Your task to perform on an android device: Add "bose soundlink mini" to the cart on ebay.com Image 0: 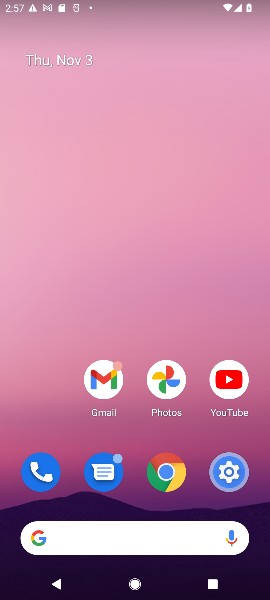
Step 0: click (144, 548)
Your task to perform on an android device: Add "bose soundlink mini" to the cart on ebay.com Image 1: 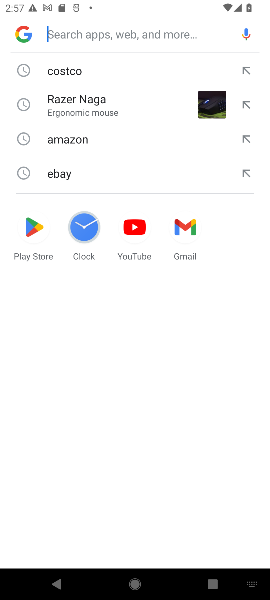
Step 1: type "bose sounlink"
Your task to perform on an android device: Add "bose soundlink mini" to the cart on ebay.com Image 2: 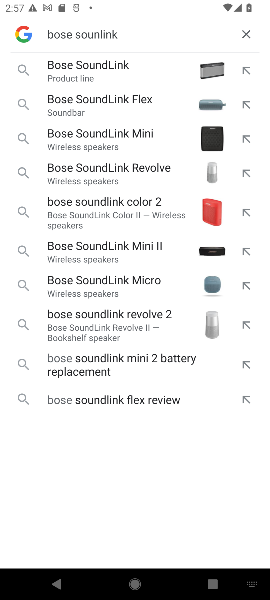
Step 2: click (83, 77)
Your task to perform on an android device: Add "bose soundlink mini" to the cart on ebay.com Image 3: 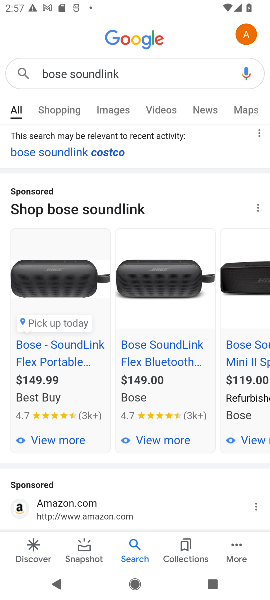
Step 3: drag from (246, 405) to (51, 400)
Your task to perform on an android device: Add "bose soundlink mini" to the cart on ebay.com Image 4: 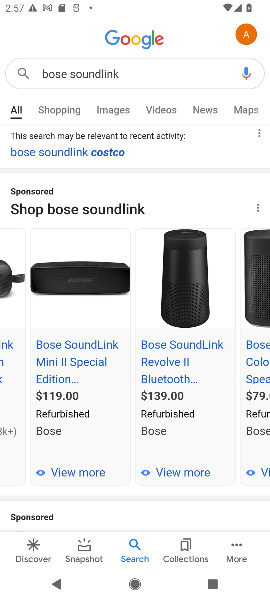
Step 4: drag from (197, 409) to (9, 430)
Your task to perform on an android device: Add "bose soundlink mini" to the cart on ebay.com Image 5: 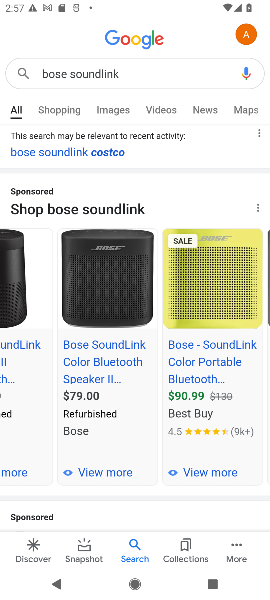
Step 5: drag from (218, 417) to (12, 443)
Your task to perform on an android device: Add "bose soundlink mini" to the cart on ebay.com Image 6: 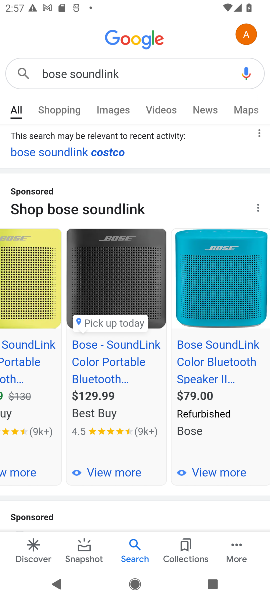
Step 6: drag from (225, 406) to (0, 387)
Your task to perform on an android device: Add "bose soundlink mini" to the cart on ebay.com Image 7: 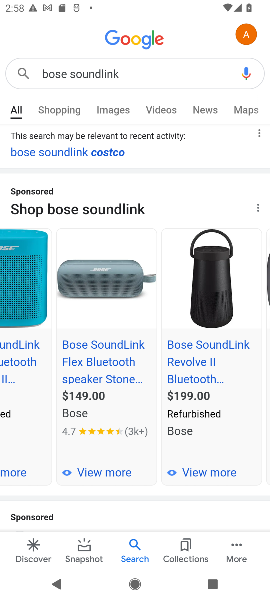
Step 7: click (111, 393)
Your task to perform on an android device: Add "bose soundlink mini" to the cart on ebay.com Image 8: 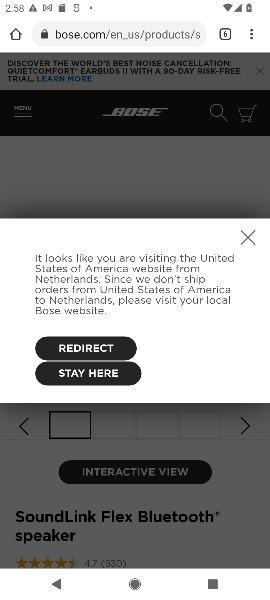
Step 8: click (239, 245)
Your task to perform on an android device: Add "bose soundlink mini" to the cart on ebay.com Image 9: 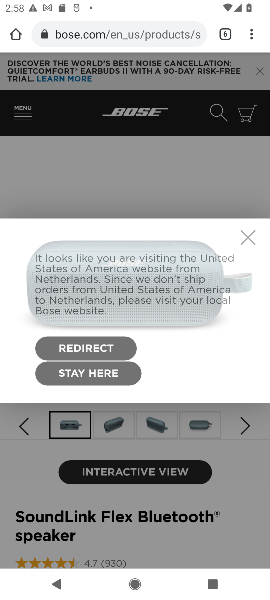
Step 9: task complete